Your task to perform on an android device: Clear all items from cart on costco.com. Image 0: 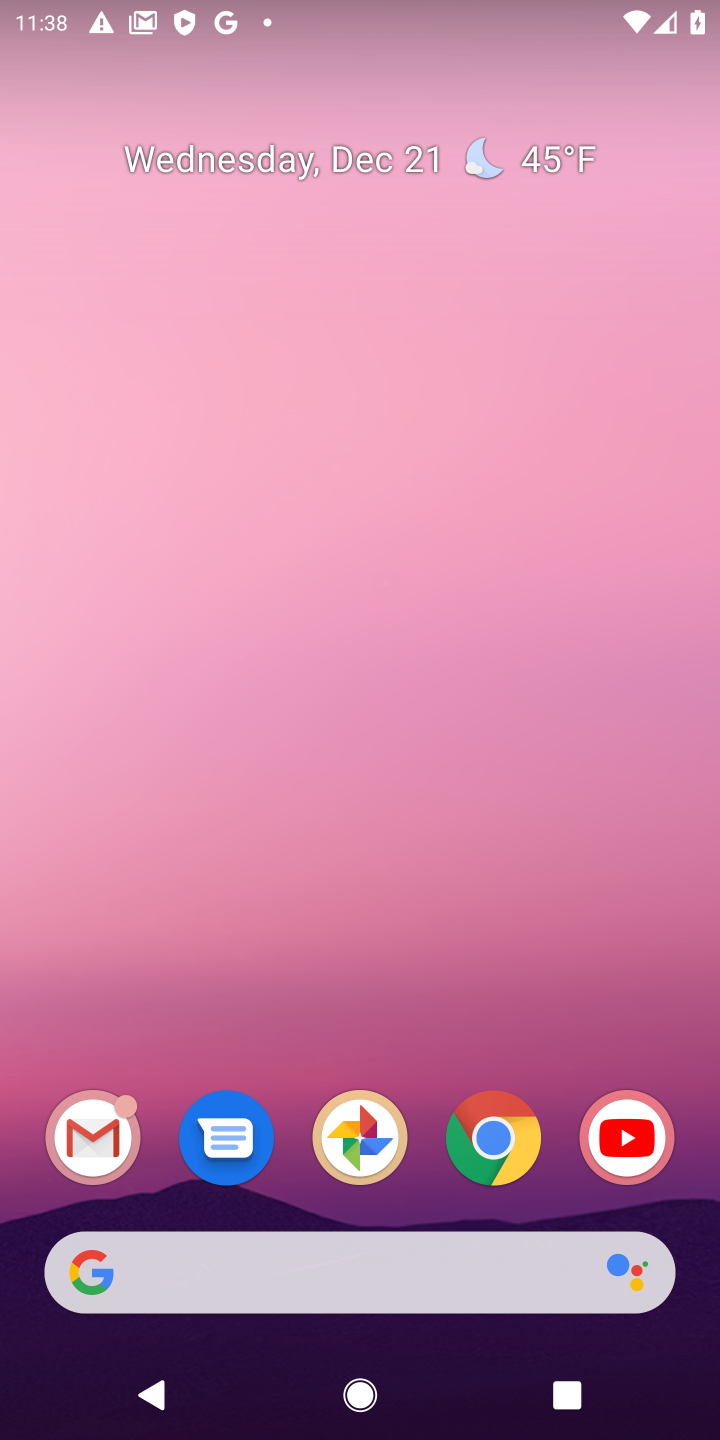
Step 0: click (497, 1148)
Your task to perform on an android device: Clear all items from cart on costco.com. Image 1: 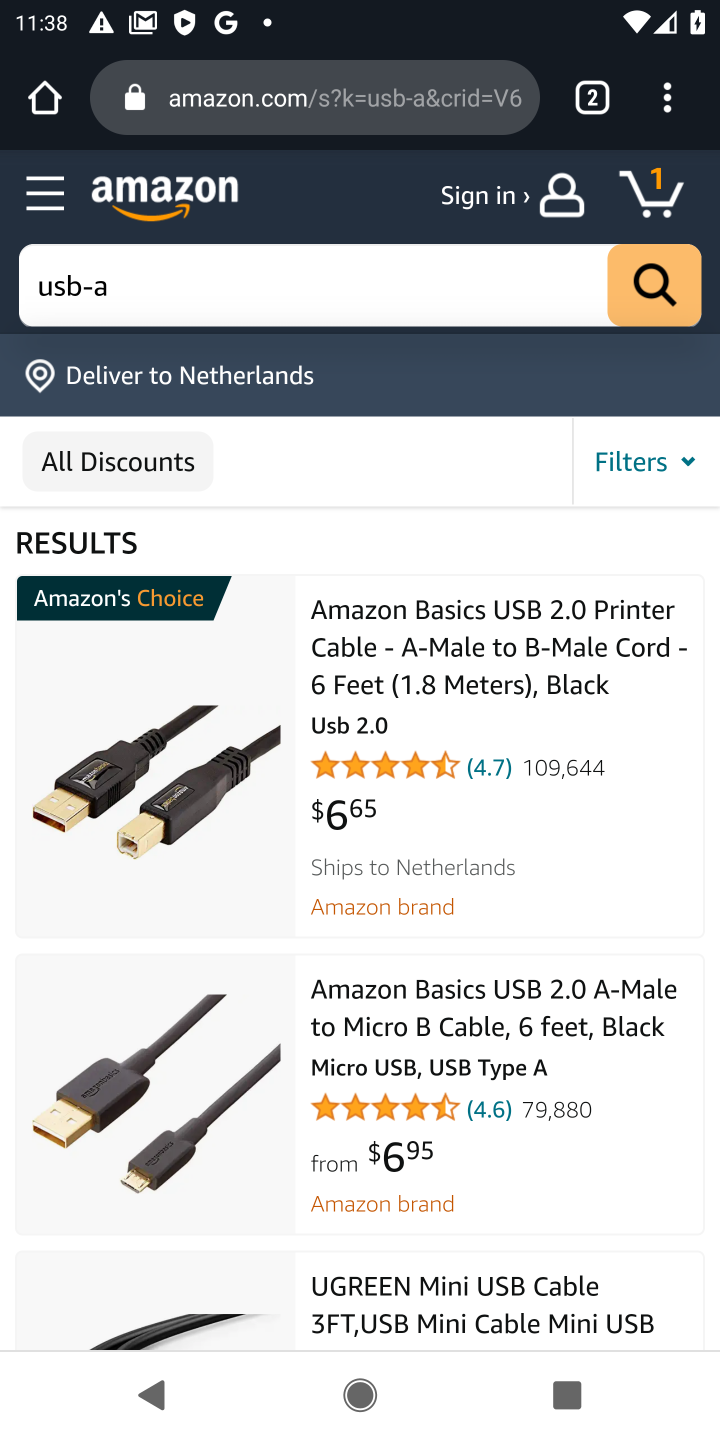
Step 1: click (264, 110)
Your task to perform on an android device: Clear all items from cart on costco.com. Image 2: 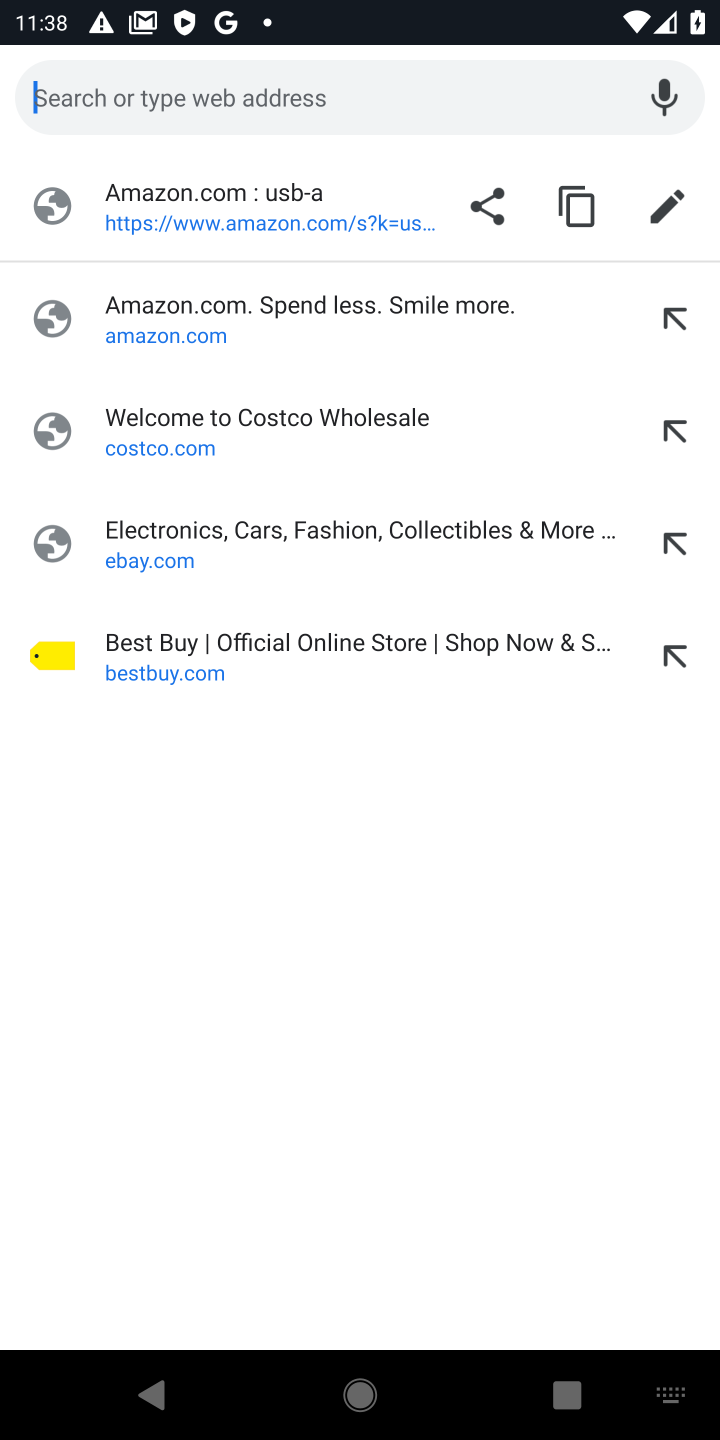
Step 2: click (141, 438)
Your task to perform on an android device: Clear all items from cart on costco.com. Image 3: 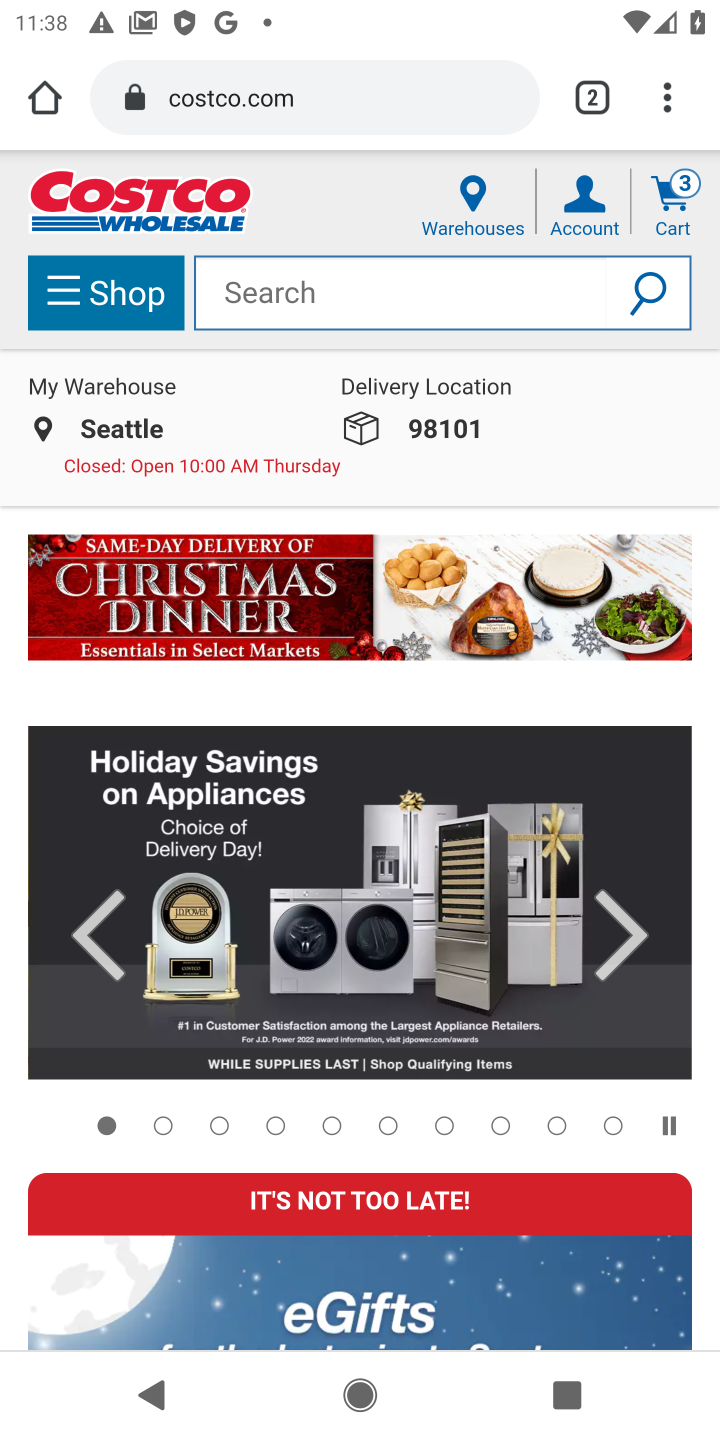
Step 3: click (682, 205)
Your task to perform on an android device: Clear all items from cart on costco.com. Image 4: 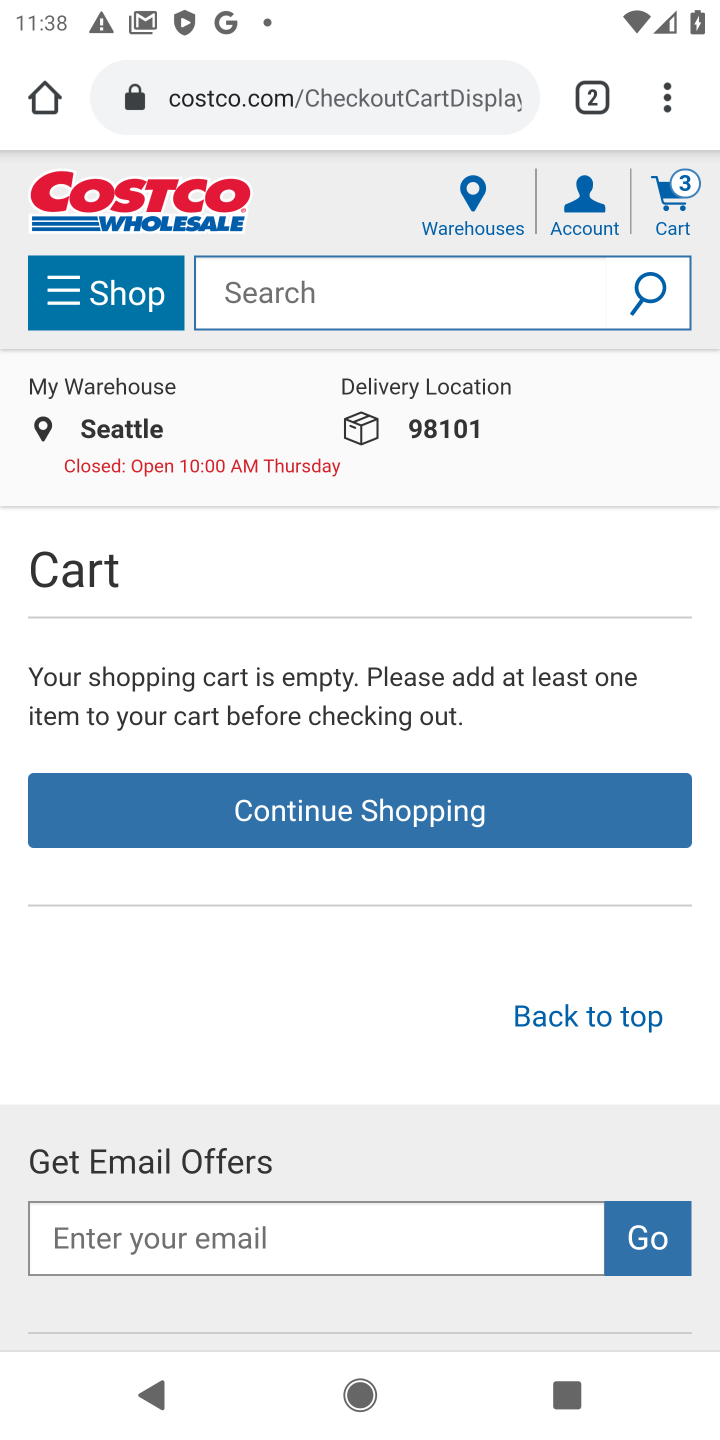
Step 4: task complete